Your task to perform on an android device: check android version Image 0: 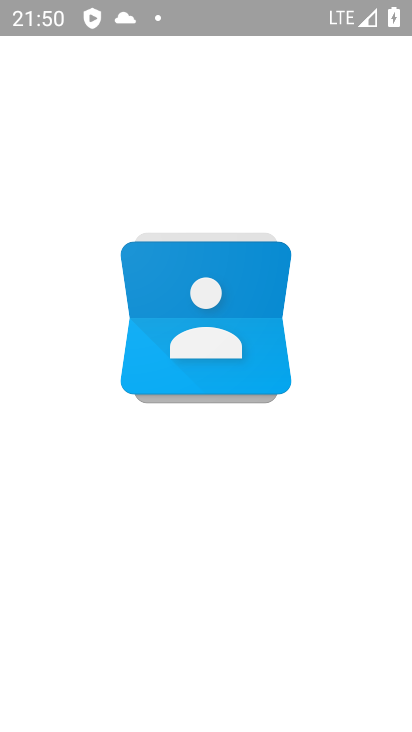
Step 0: drag from (360, 516) to (344, 75)
Your task to perform on an android device: check android version Image 1: 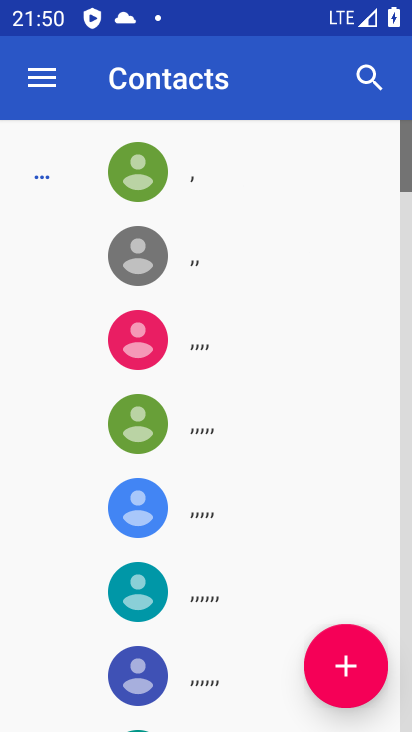
Step 1: press home button
Your task to perform on an android device: check android version Image 2: 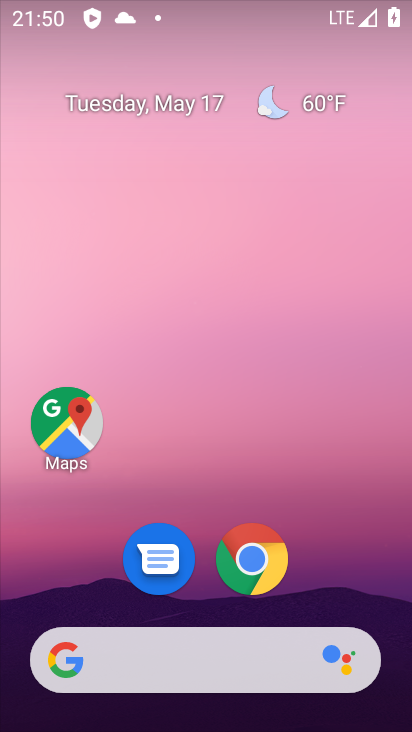
Step 2: drag from (343, 567) to (350, 108)
Your task to perform on an android device: check android version Image 3: 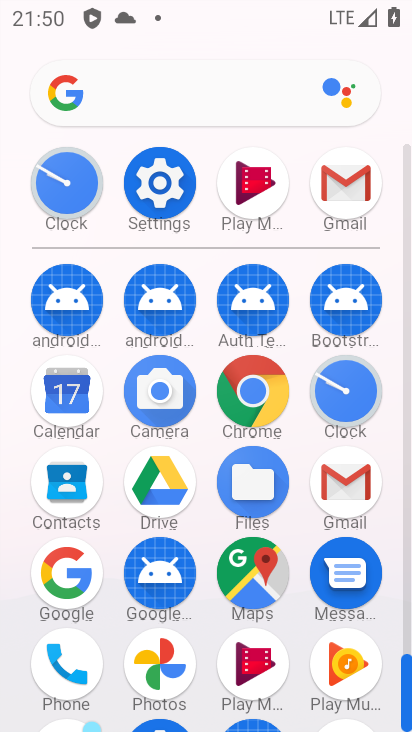
Step 3: click (174, 196)
Your task to perform on an android device: check android version Image 4: 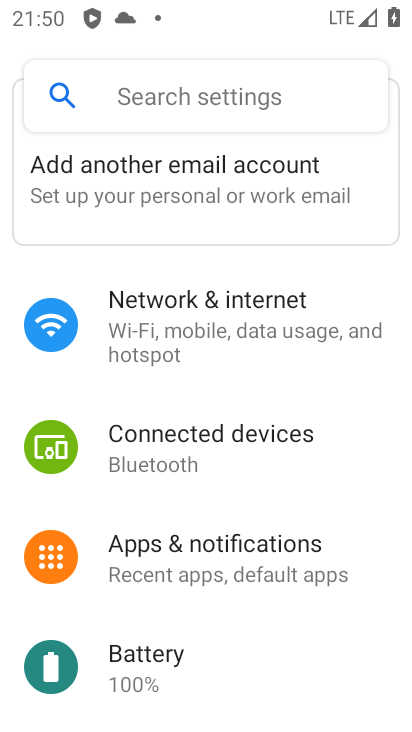
Step 4: drag from (266, 675) to (259, 83)
Your task to perform on an android device: check android version Image 5: 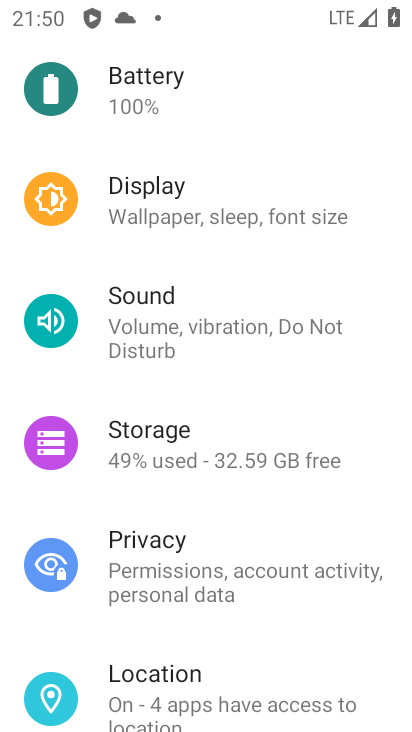
Step 5: drag from (215, 603) to (268, 175)
Your task to perform on an android device: check android version Image 6: 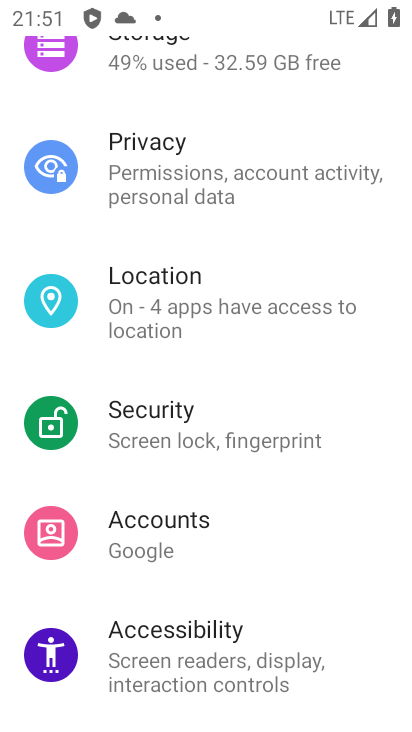
Step 6: drag from (202, 651) to (250, 200)
Your task to perform on an android device: check android version Image 7: 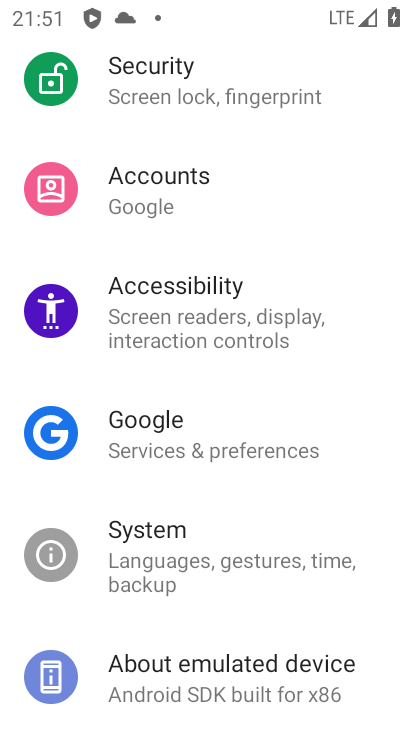
Step 7: drag from (227, 641) to (267, 368)
Your task to perform on an android device: check android version Image 8: 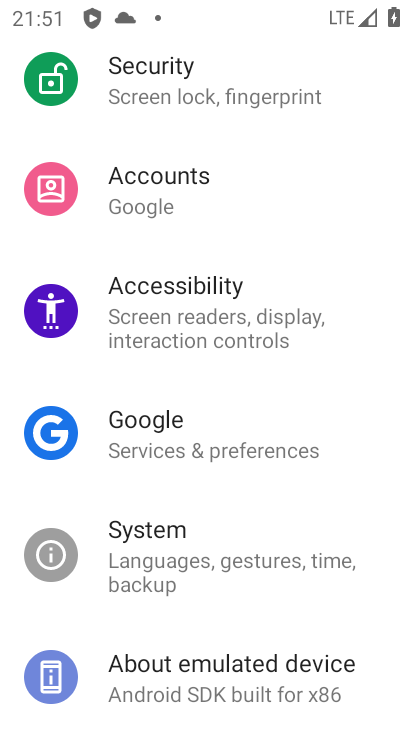
Step 8: click (247, 676)
Your task to perform on an android device: check android version Image 9: 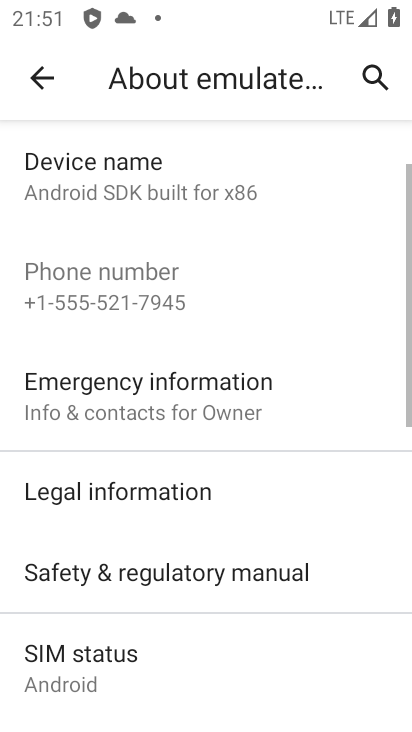
Step 9: drag from (240, 668) to (214, 200)
Your task to perform on an android device: check android version Image 10: 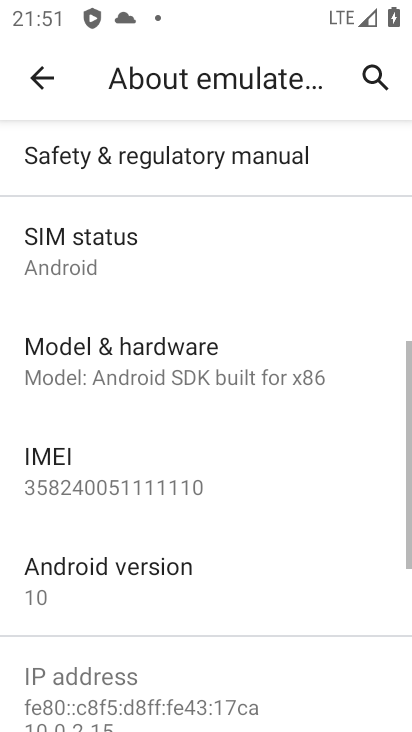
Step 10: click (96, 587)
Your task to perform on an android device: check android version Image 11: 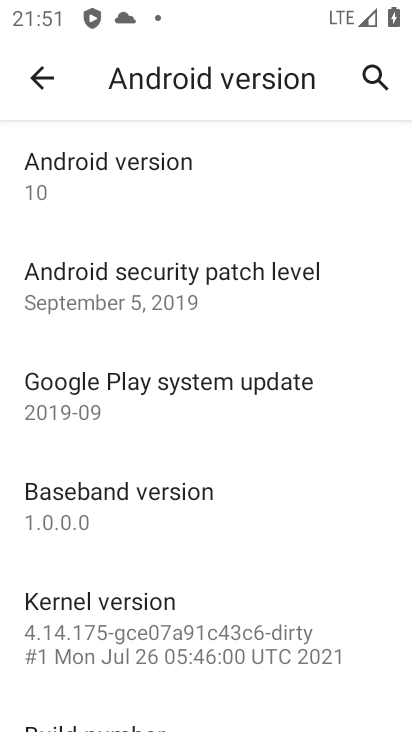
Step 11: task complete